Your task to perform on an android device: change alarm snooze length Image 0: 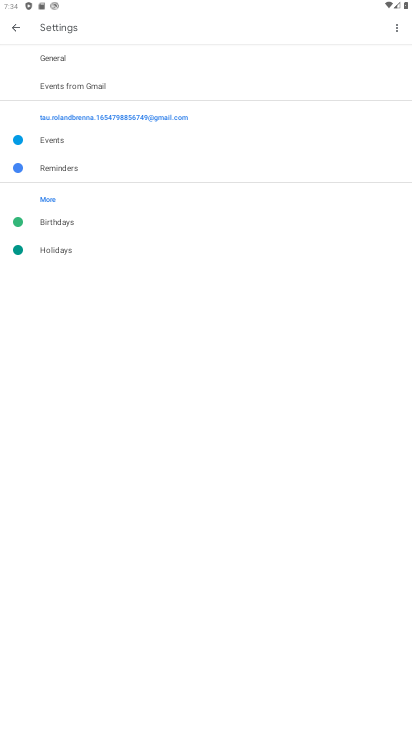
Step 0: press home button
Your task to perform on an android device: change alarm snooze length Image 1: 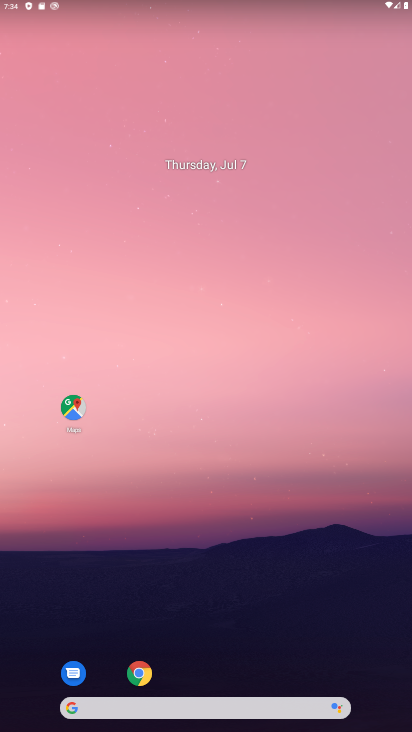
Step 1: drag from (226, 617) to (252, 161)
Your task to perform on an android device: change alarm snooze length Image 2: 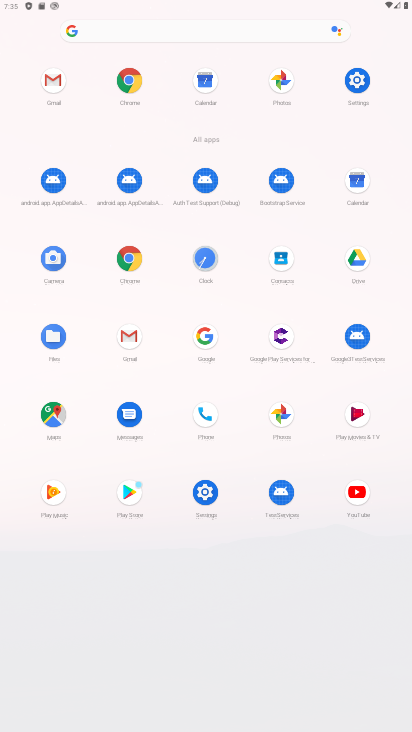
Step 2: click (207, 259)
Your task to perform on an android device: change alarm snooze length Image 3: 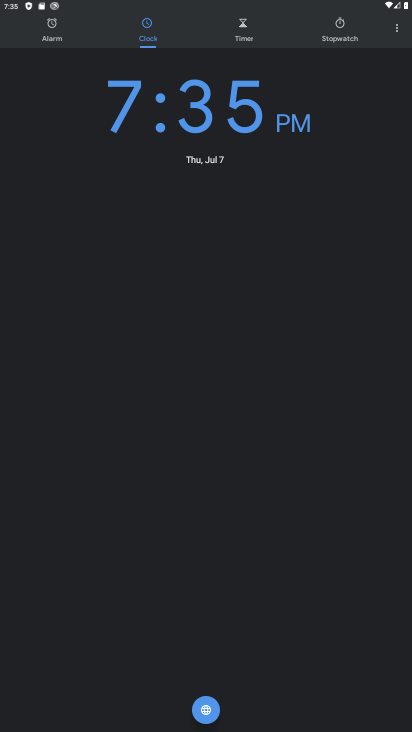
Step 3: click (399, 30)
Your task to perform on an android device: change alarm snooze length Image 4: 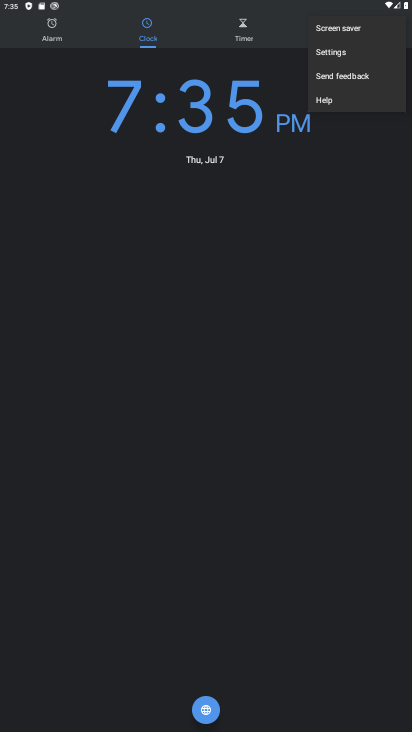
Step 4: click (345, 51)
Your task to perform on an android device: change alarm snooze length Image 5: 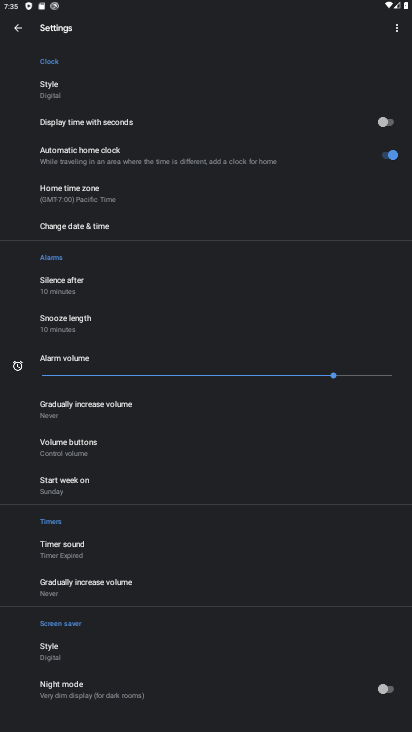
Step 5: click (83, 324)
Your task to perform on an android device: change alarm snooze length Image 6: 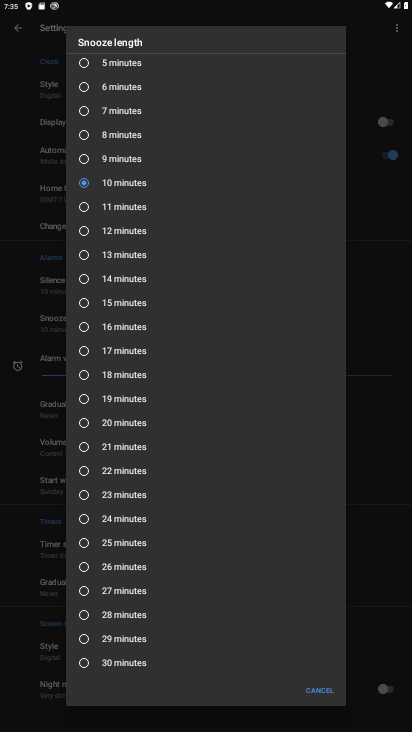
Step 6: click (87, 500)
Your task to perform on an android device: change alarm snooze length Image 7: 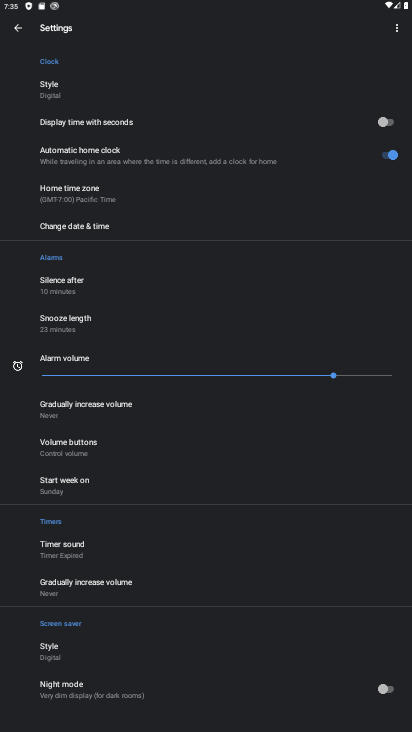
Step 7: task complete